Your task to perform on an android device: What's the weather? Image 0: 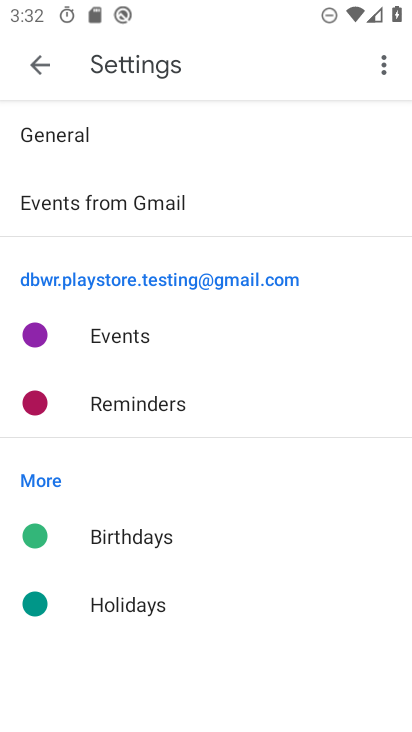
Step 0: press home button
Your task to perform on an android device: What's the weather? Image 1: 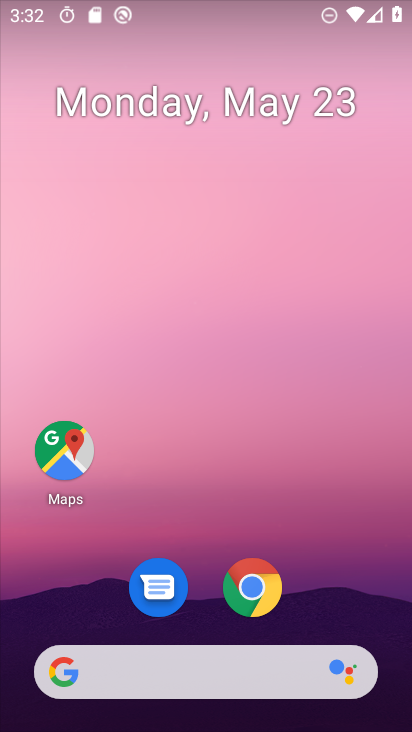
Step 1: drag from (207, 621) to (193, 66)
Your task to perform on an android device: What's the weather? Image 2: 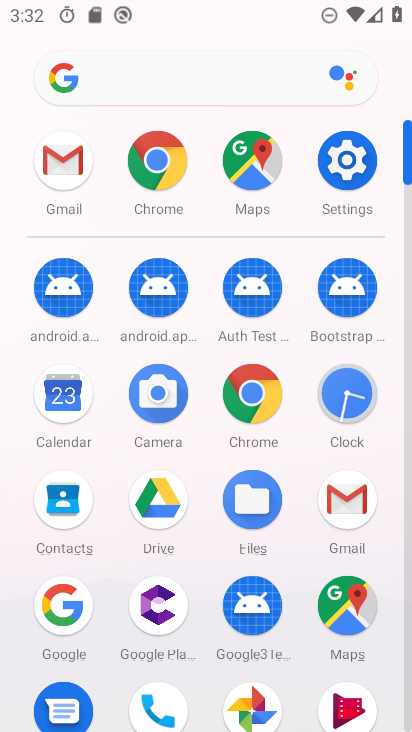
Step 2: click (224, 77)
Your task to perform on an android device: What's the weather? Image 3: 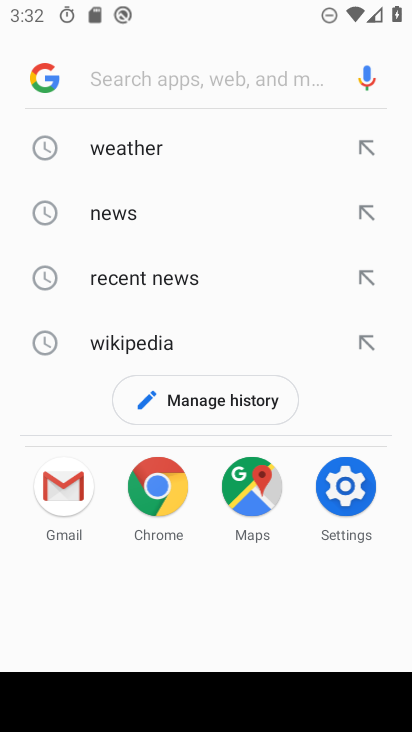
Step 3: click (220, 149)
Your task to perform on an android device: What's the weather? Image 4: 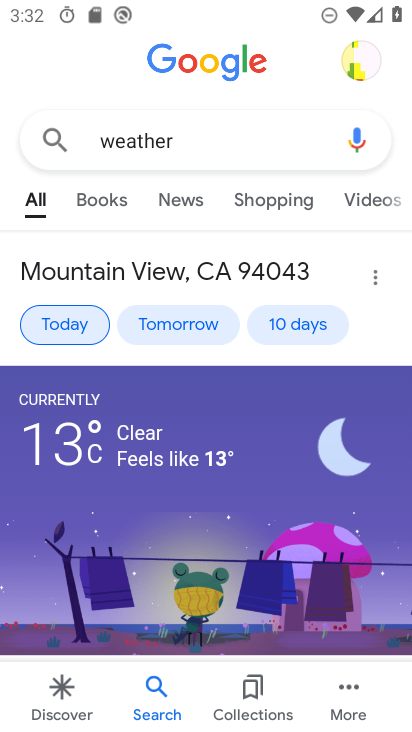
Step 4: task complete